Your task to perform on an android device: Open battery settings Image 0: 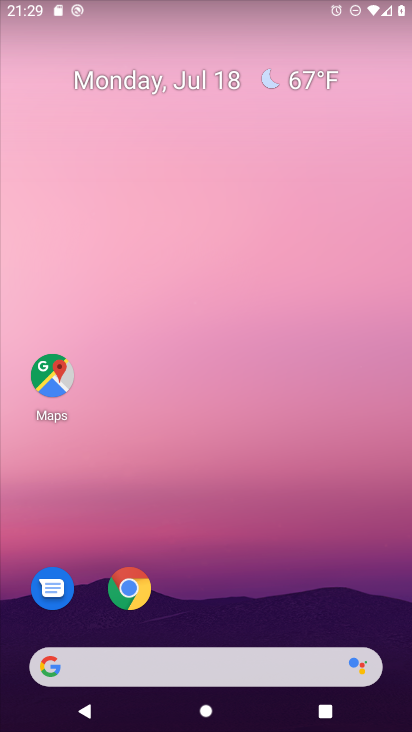
Step 0: drag from (392, 619) to (358, 58)
Your task to perform on an android device: Open battery settings Image 1: 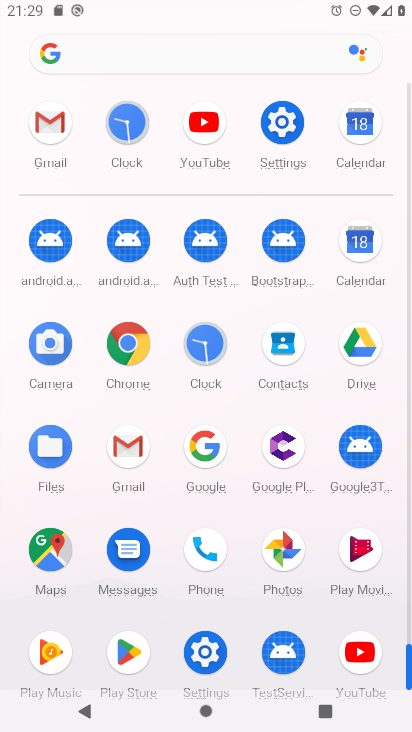
Step 1: click (206, 649)
Your task to perform on an android device: Open battery settings Image 2: 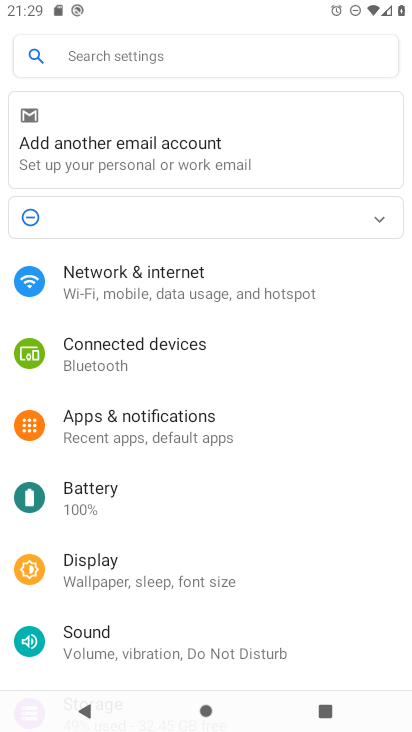
Step 2: click (94, 488)
Your task to perform on an android device: Open battery settings Image 3: 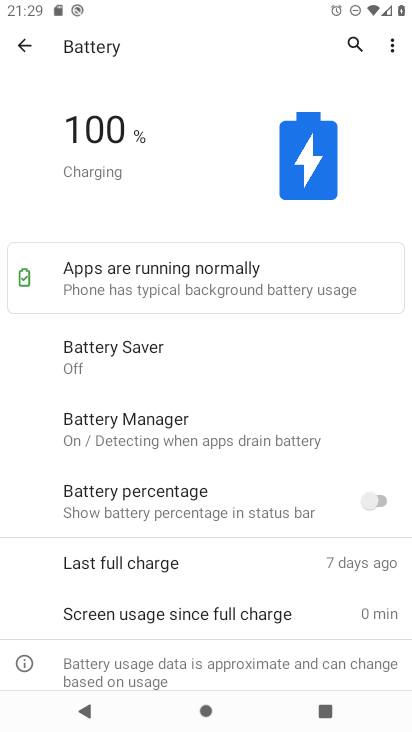
Step 3: task complete